Your task to perform on an android device: Open settings Image 0: 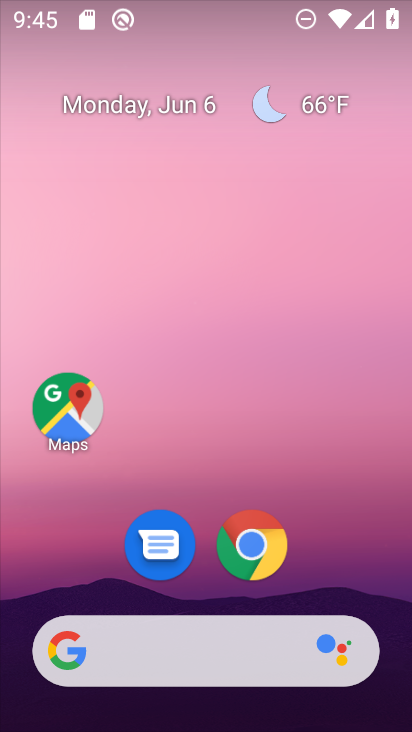
Step 0: drag from (201, 572) to (214, 233)
Your task to perform on an android device: Open settings Image 1: 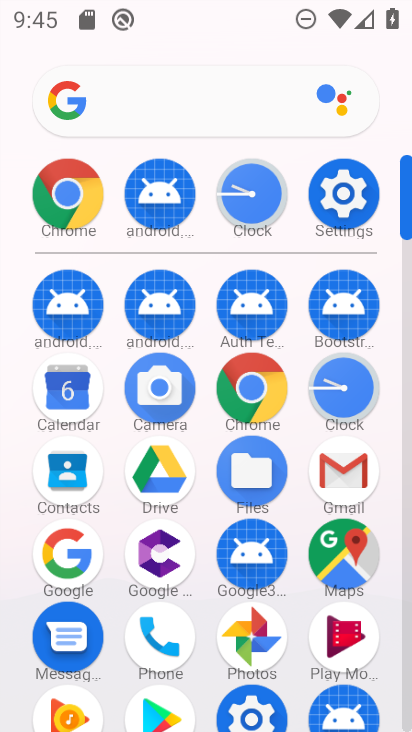
Step 1: click (338, 196)
Your task to perform on an android device: Open settings Image 2: 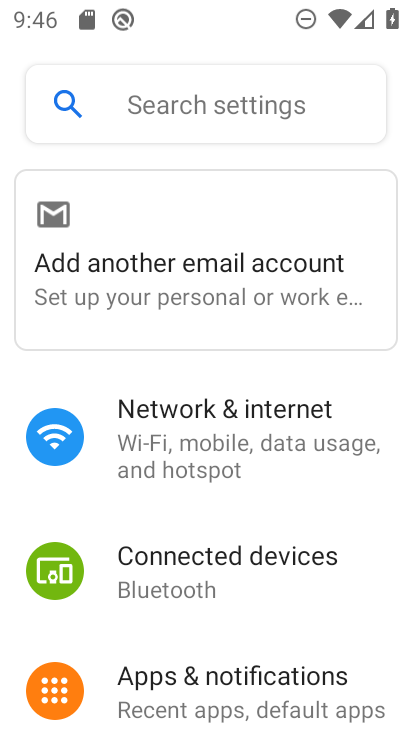
Step 2: task complete